Your task to perform on an android device: toggle javascript in the chrome app Image 0: 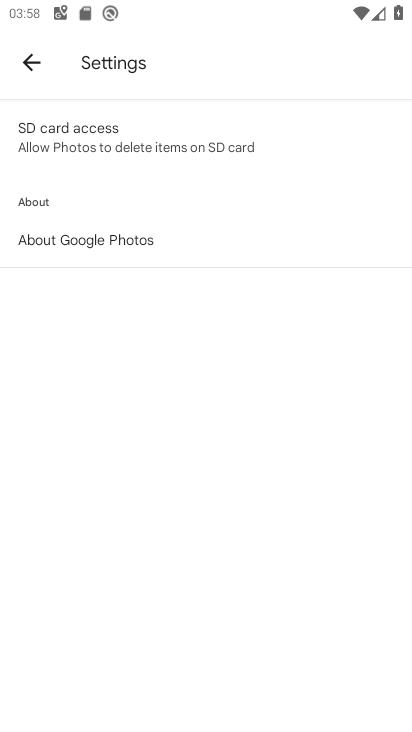
Step 0: press home button
Your task to perform on an android device: toggle javascript in the chrome app Image 1: 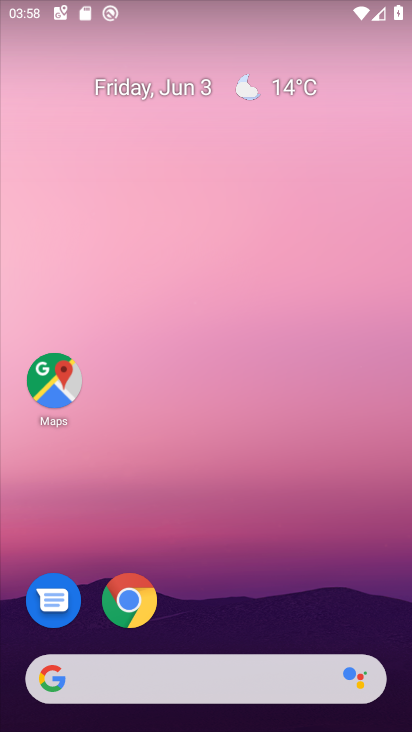
Step 1: click (126, 600)
Your task to perform on an android device: toggle javascript in the chrome app Image 2: 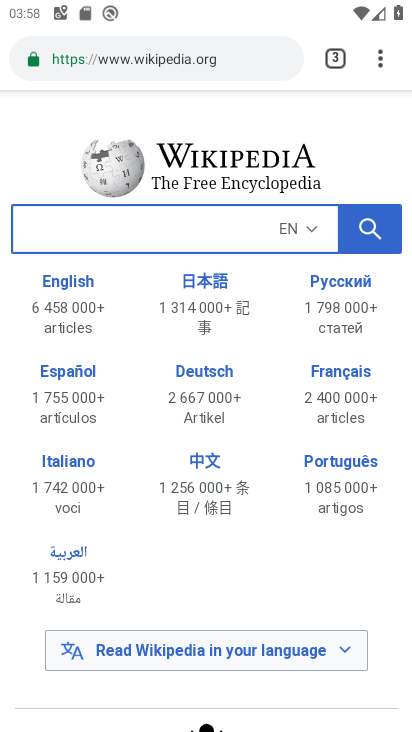
Step 2: drag from (380, 63) to (217, 625)
Your task to perform on an android device: toggle javascript in the chrome app Image 3: 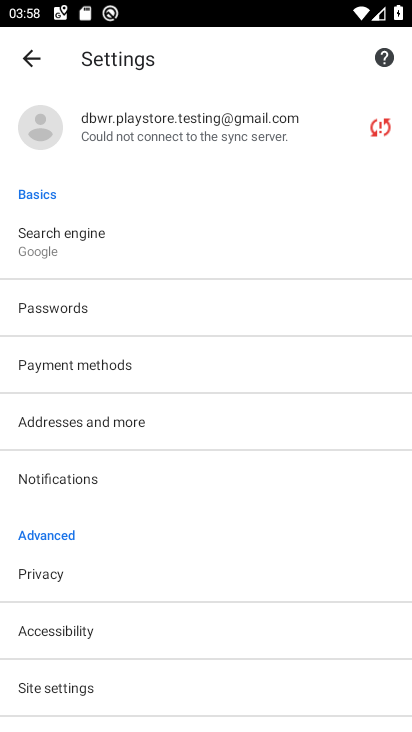
Step 3: drag from (117, 612) to (188, 130)
Your task to perform on an android device: toggle javascript in the chrome app Image 4: 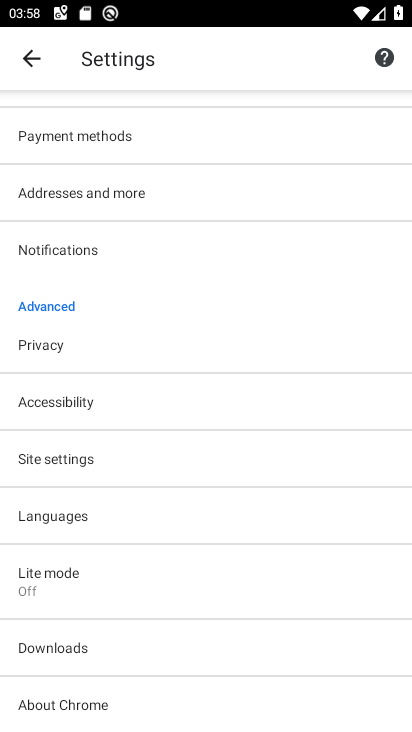
Step 4: click (101, 452)
Your task to perform on an android device: toggle javascript in the chrome app Image 5: 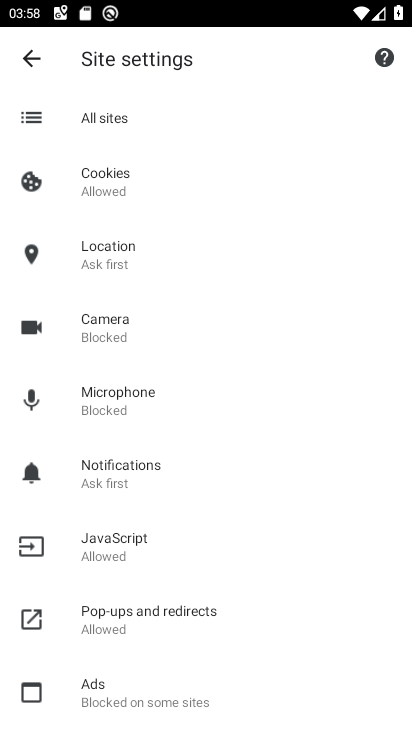
Step 5: click (148, 544)
Your task to perform on an android device: toggle javascript in the chrome app Image 6: 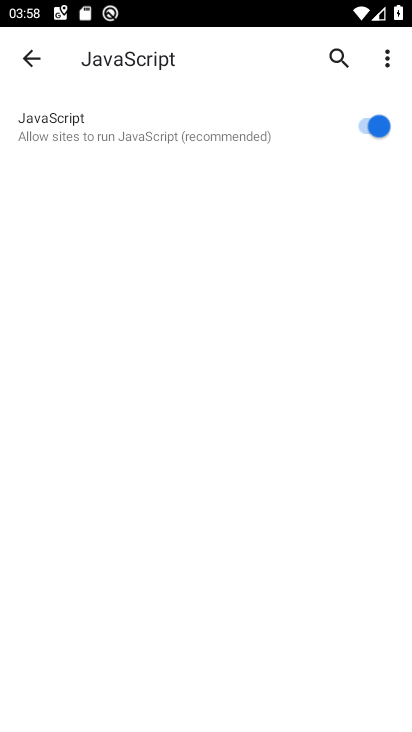
Step 6: click (378, 130)
Your task to perform on an android device: toggle javascript in the chrome app Image 7: 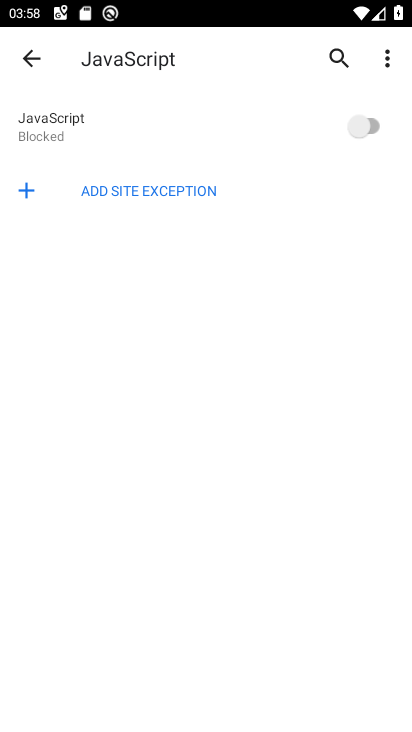
Step 7: task complete